Your task to perform on an android device: Show the shopping cart on newegg. Image 0: 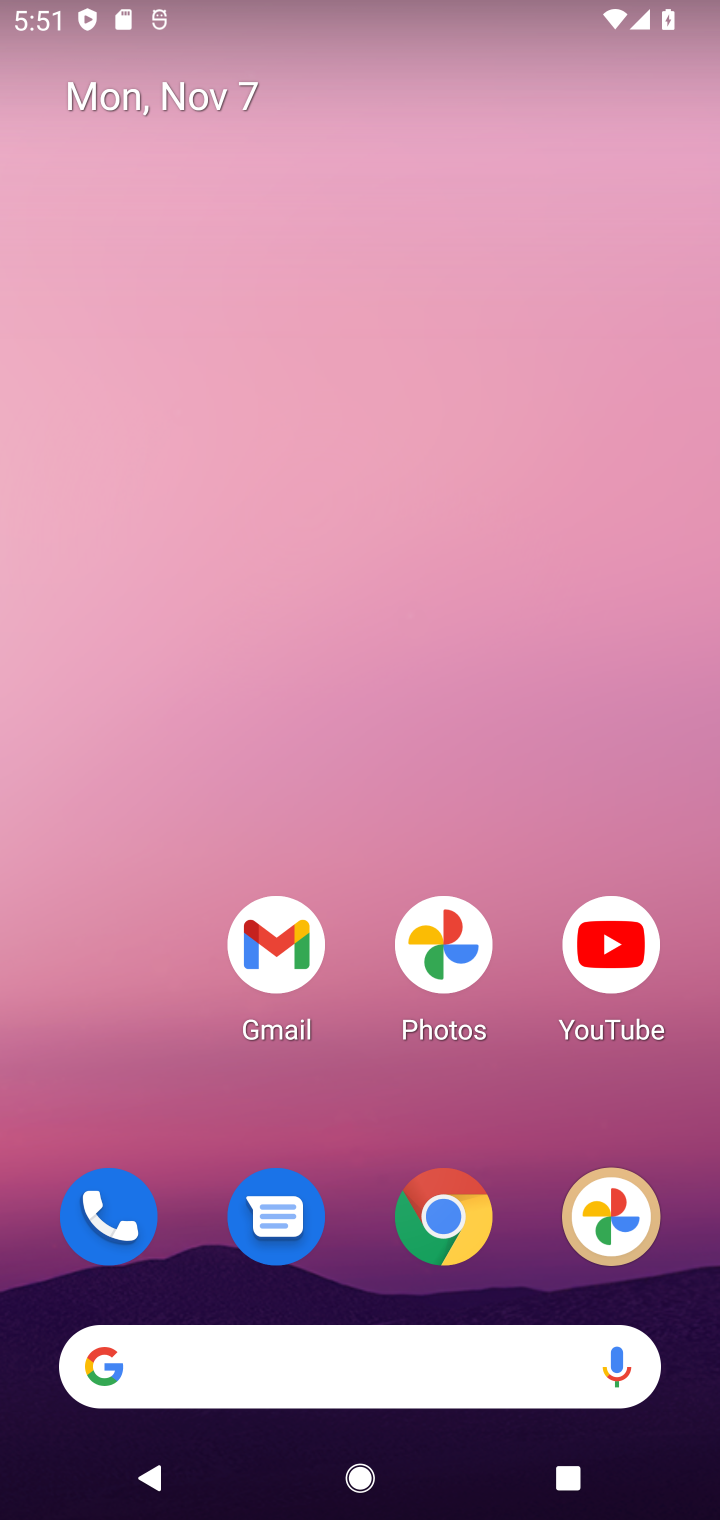
Step 0: drag from (385, 984) to (366, 173)
Your task to perform on an android device: Show the shopping cart on newegg. Image 1: 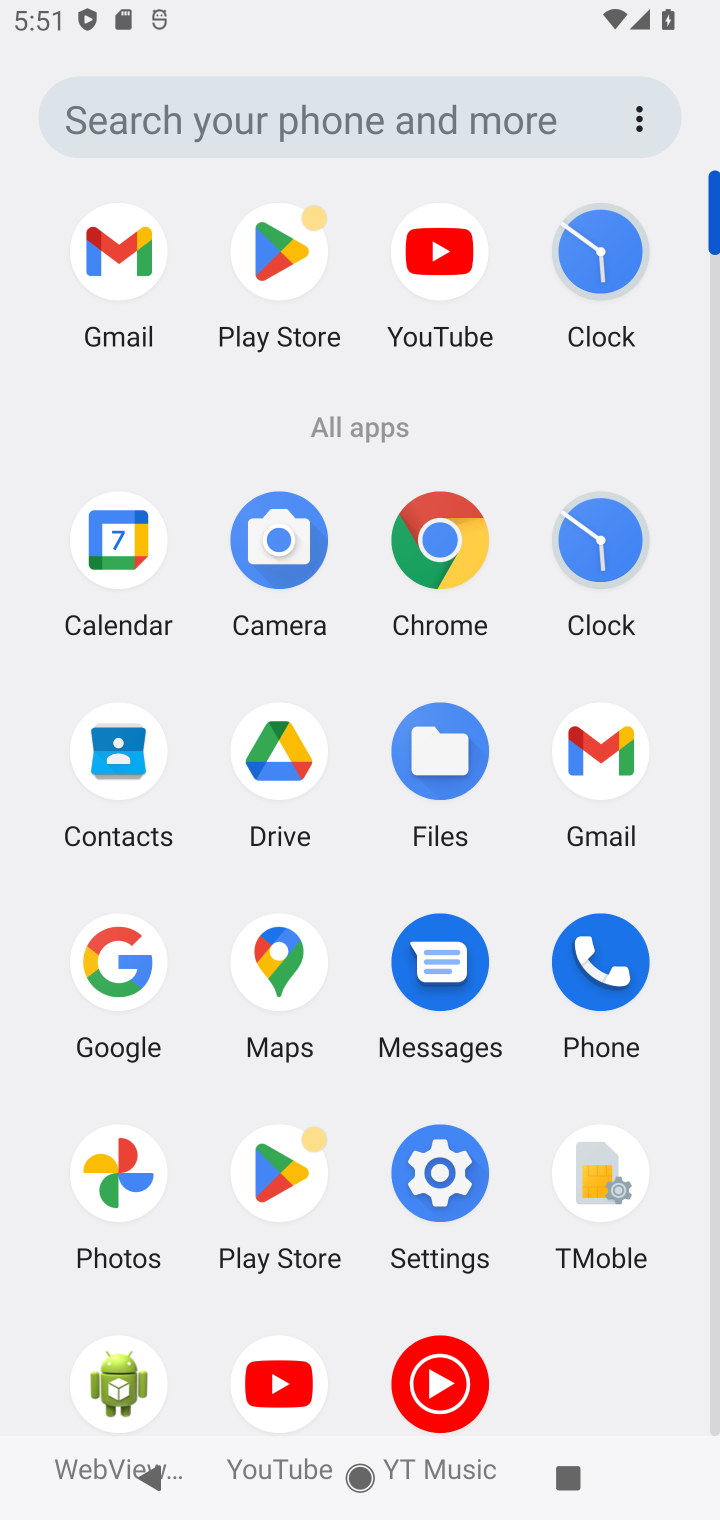
Step 1: click (431, 542)
Your task to perform on an android device: Show the shopping cart on newegg. Image 2: 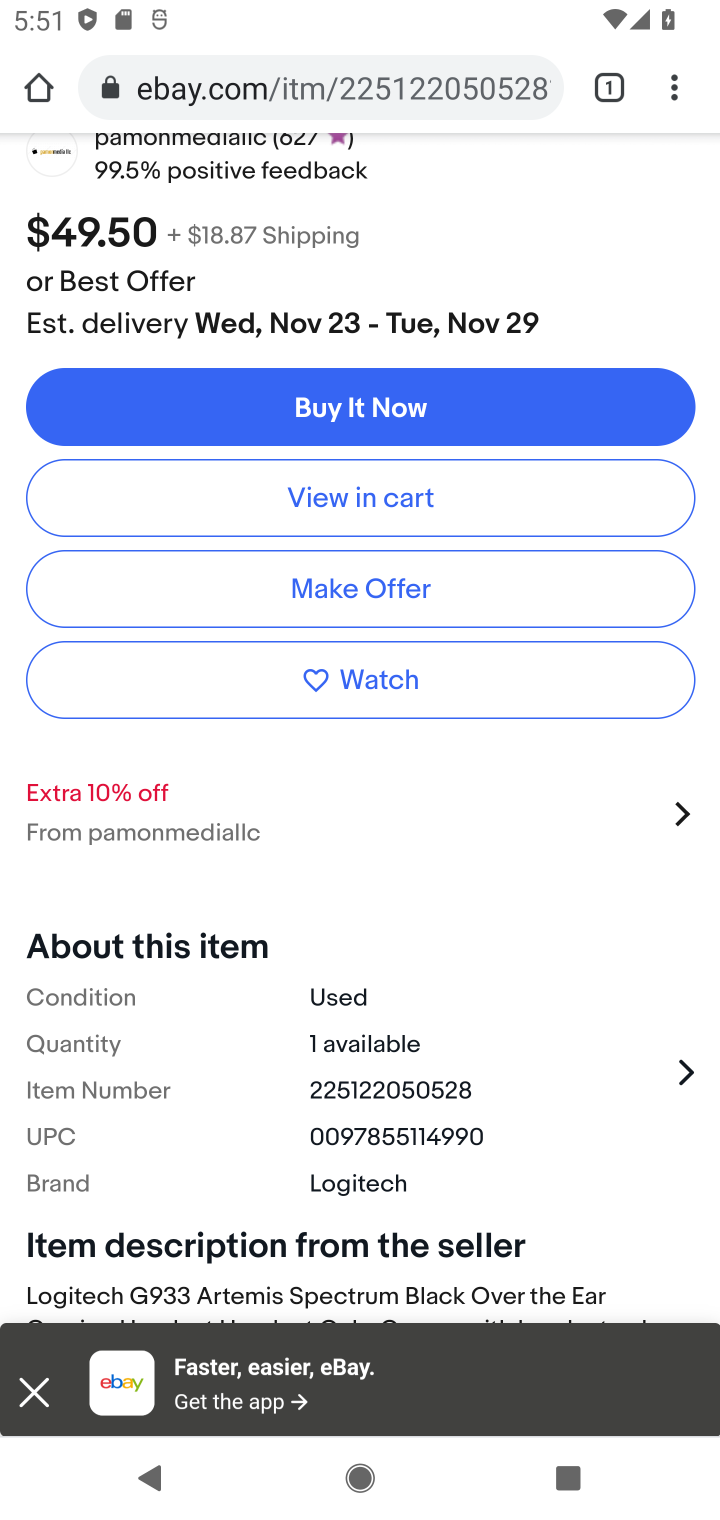
Step 2: click (451, 72)
Your task to perform on an android device: Show the shopping cart on newegg. Image 3: 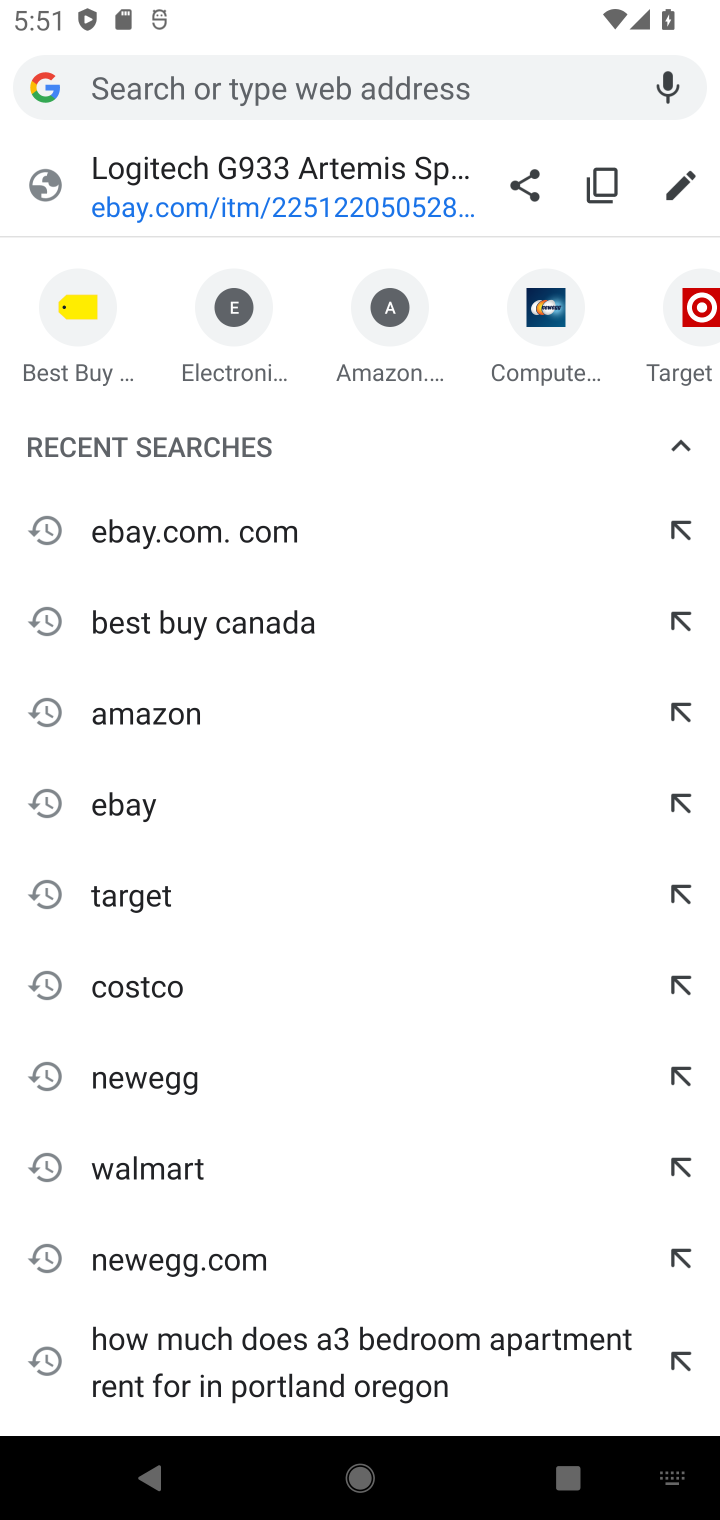
Step 3: type "newegg.com"
Your task to perform on an android device: Show the shopping cart on newegg. Image 4: 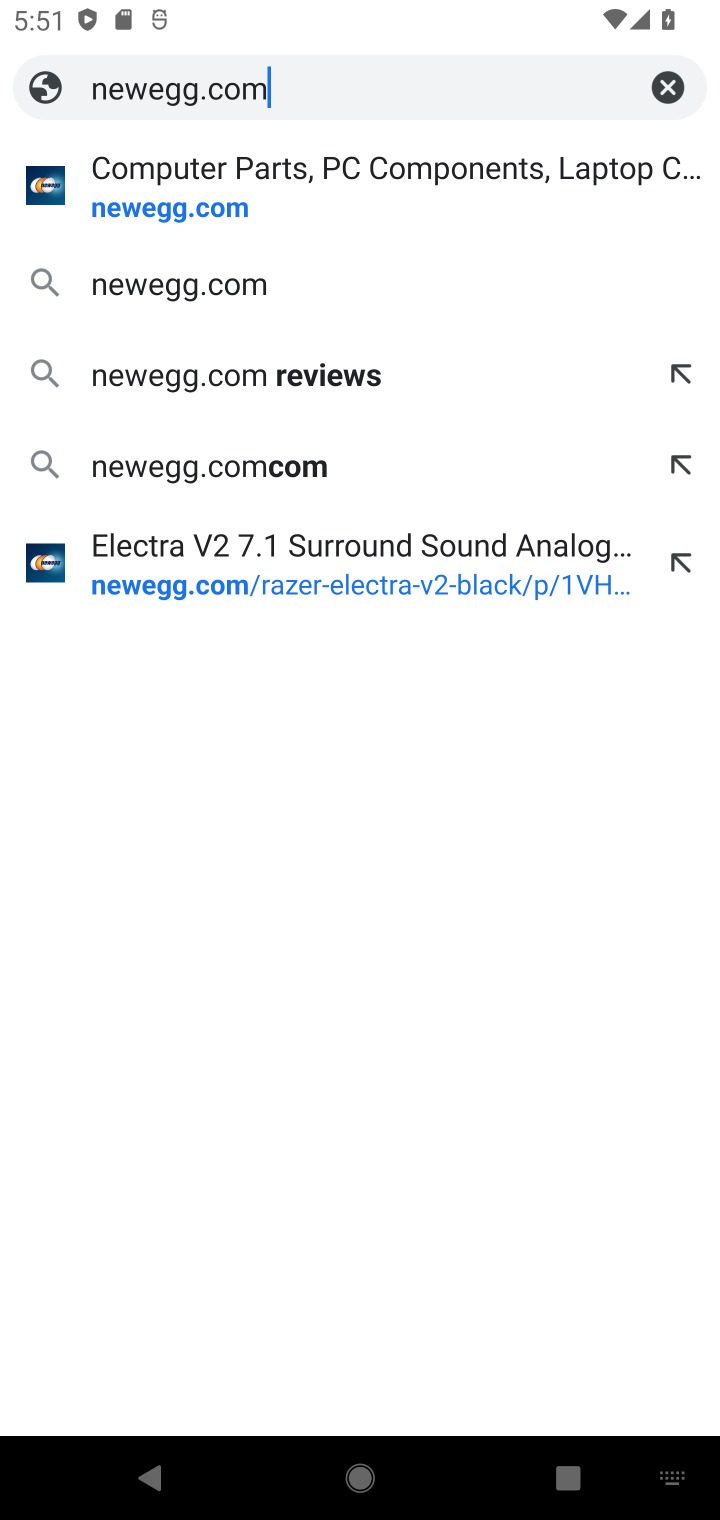
Step 4: press enter
Your task to perform on an android device: Show the shopping cart on newegg. Image 5: 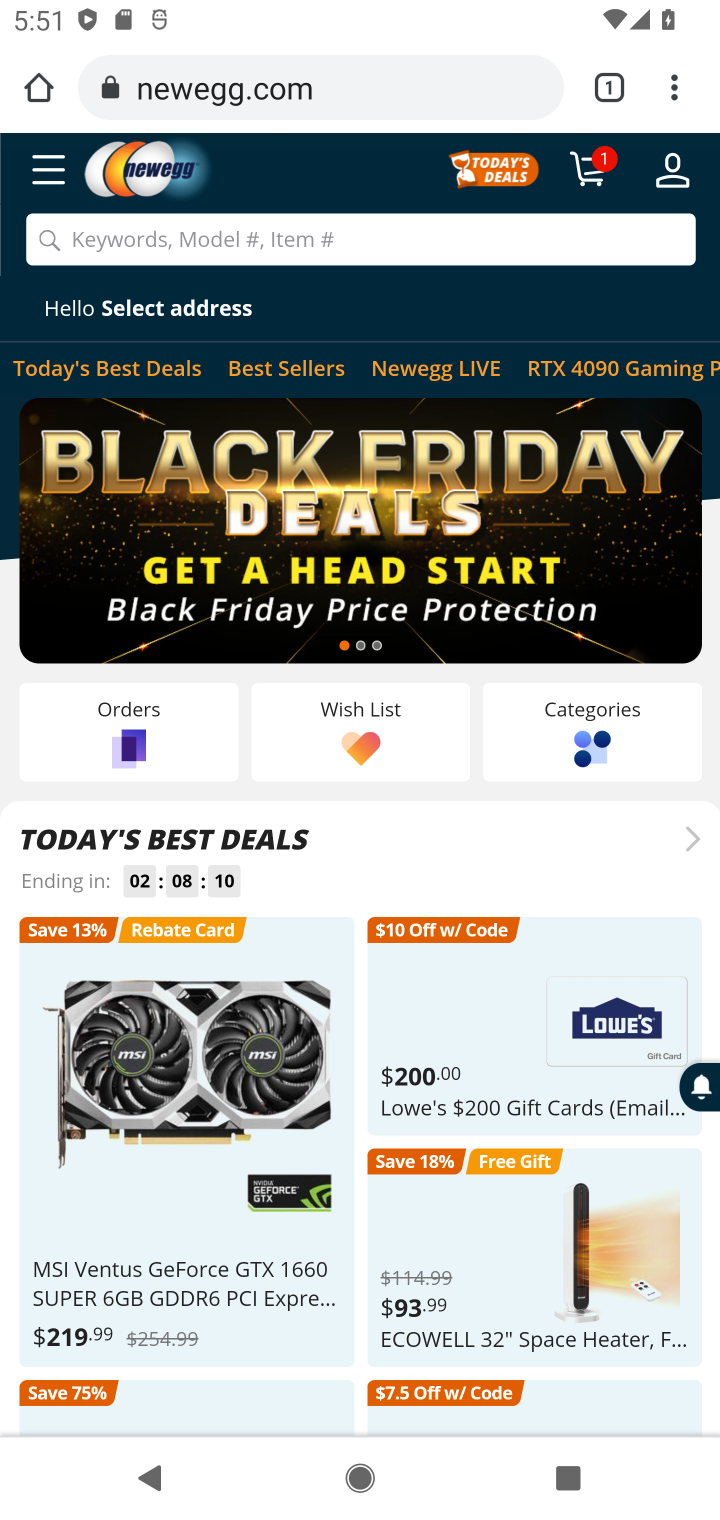
Step 5: click (590, 159)
Your task to perform on an android device: Show the shopping cart on newegg. Image 6: 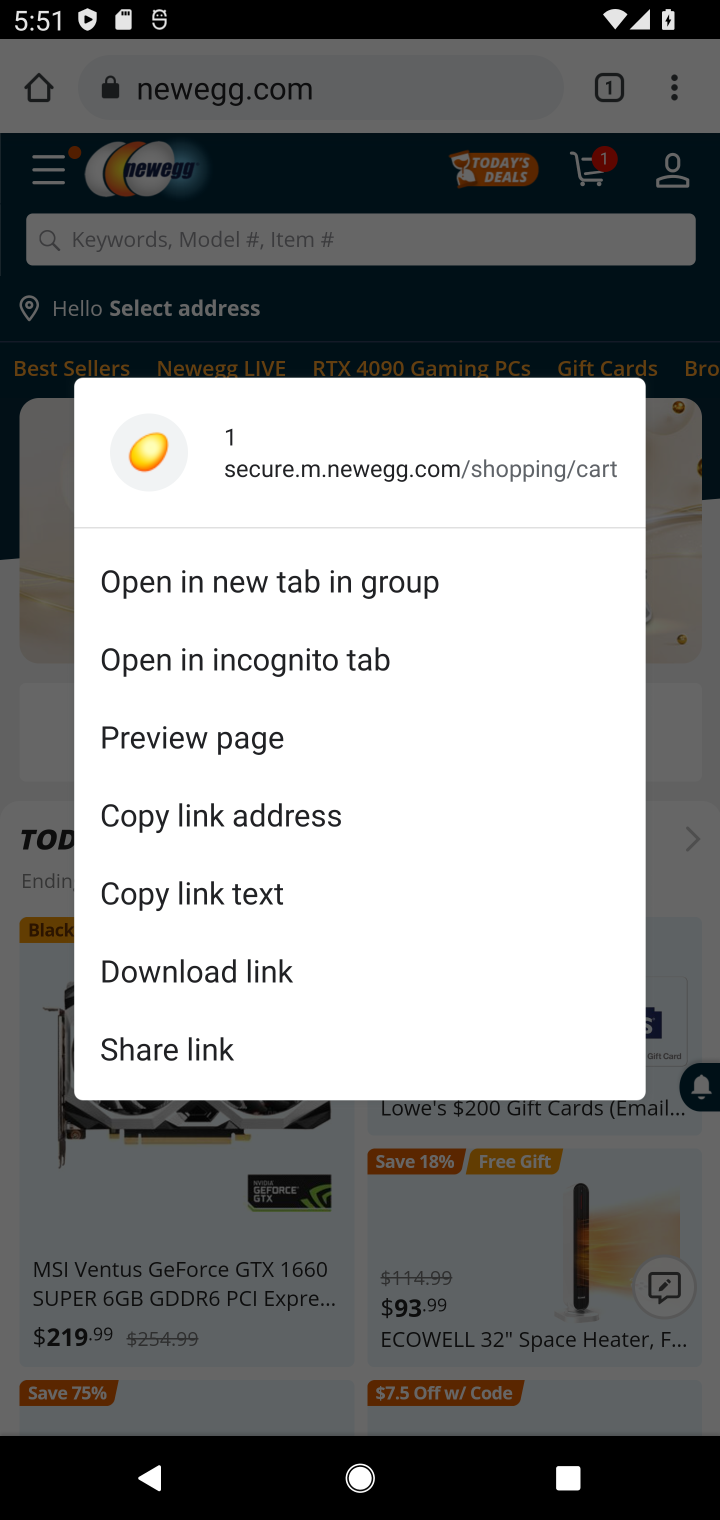
Step 6: click (609, 173)
Your task to perform on an android device: Show the shopping cart on newegg. Image 7: 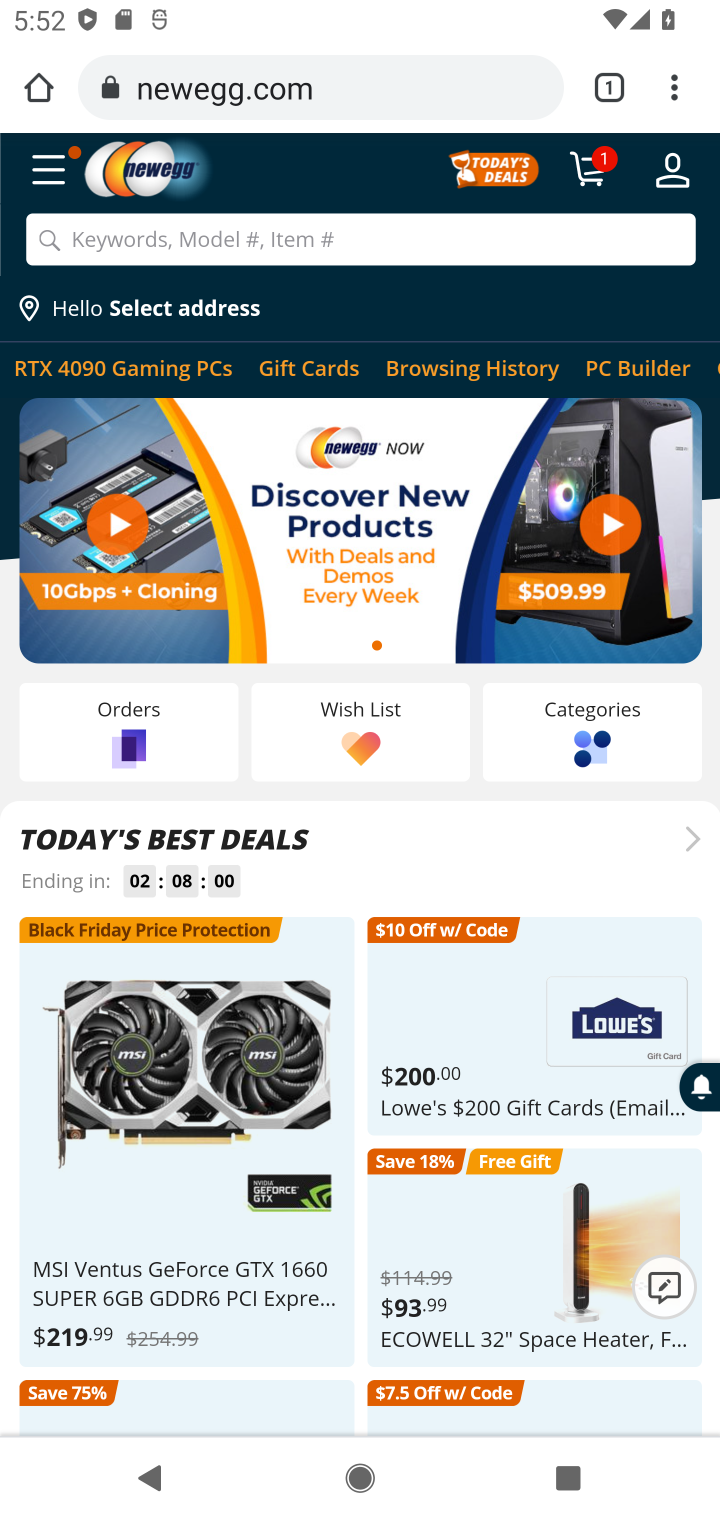
Step 7: click (609, 173)
Your task to perform on an android device: Show the shopping cart on newegg. Image 8: 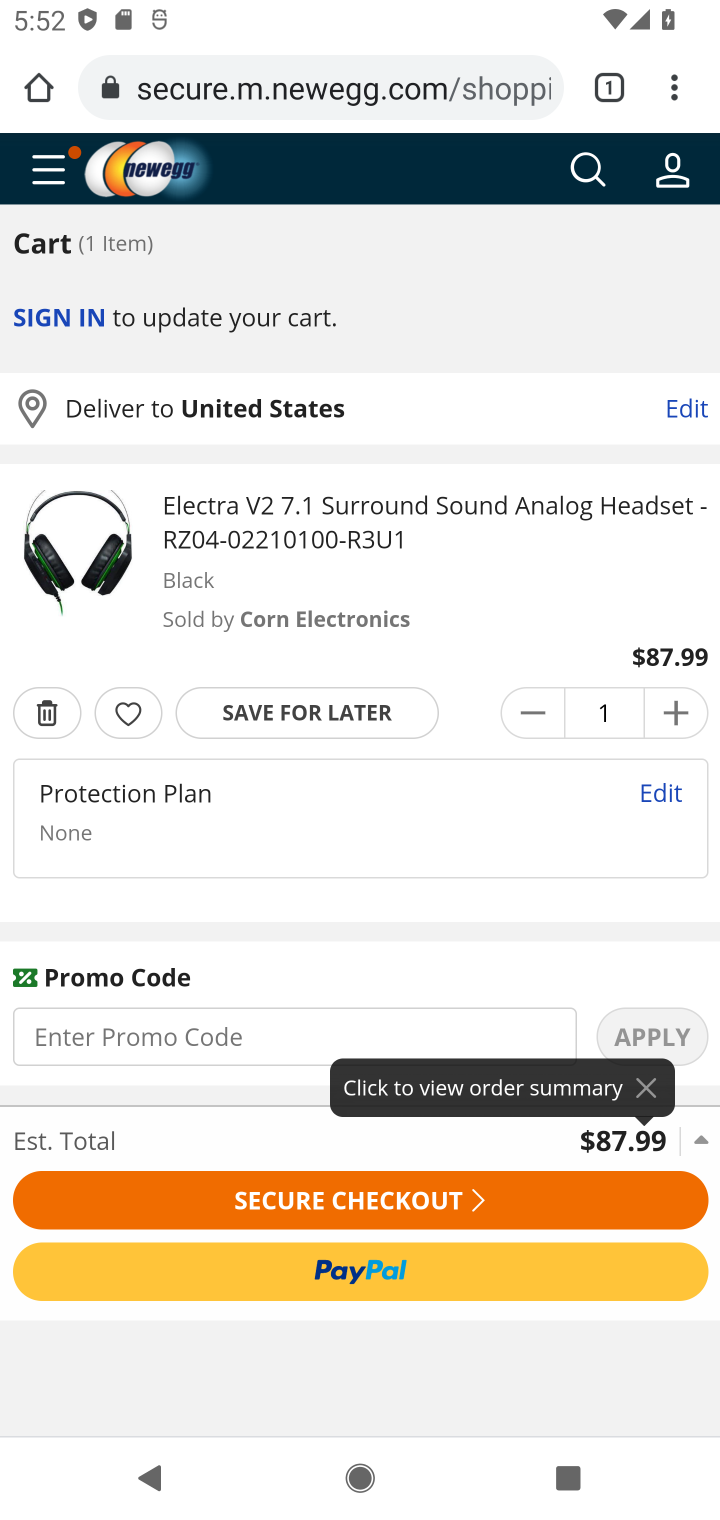
Step 8: task complete